Your task to perform on an android device: change keyboard looks Image 0: 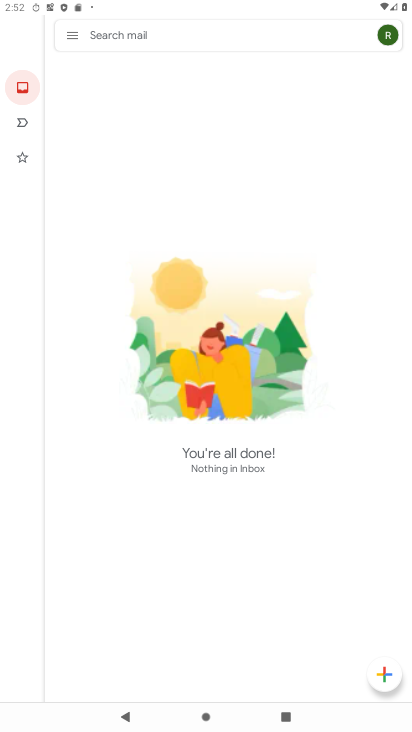
Step 0: press home button
Your task to perform on an android device: change keyboard looks Image 1: 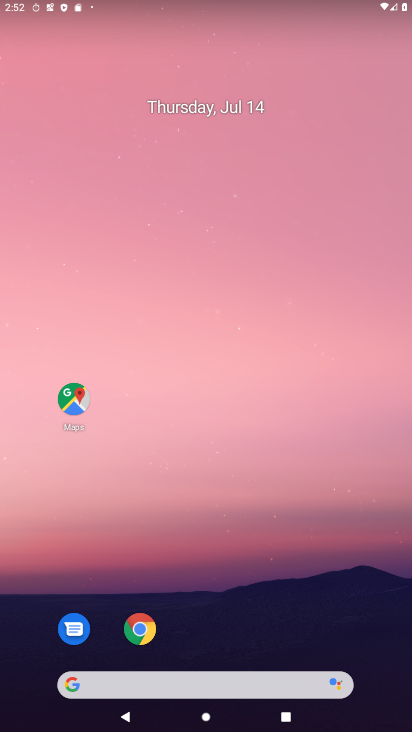
Step 1: drag from (274, 591) to (268, 119)
Your task to perform on an android device: change keyboard looks Image 2: 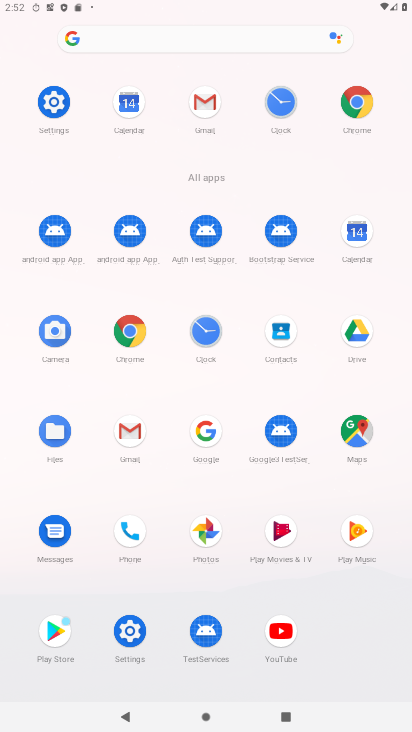
Step 2: click (53, 101)
Your task to perform on an android device: change keyboard looks Image 3: 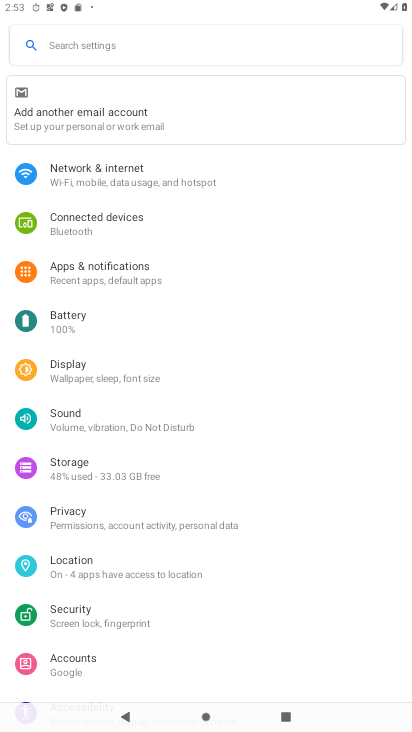
Step 3: drag from (181, 571) to (176, 56)
Your task to perform on an android device: change keyboard looks Image 4: 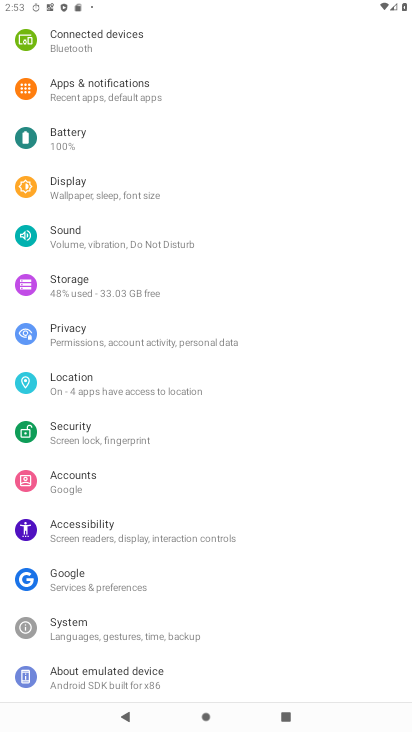
Step 4: click (153, 625)
Your task to perform on an android device: change keyboard looks Image 5: 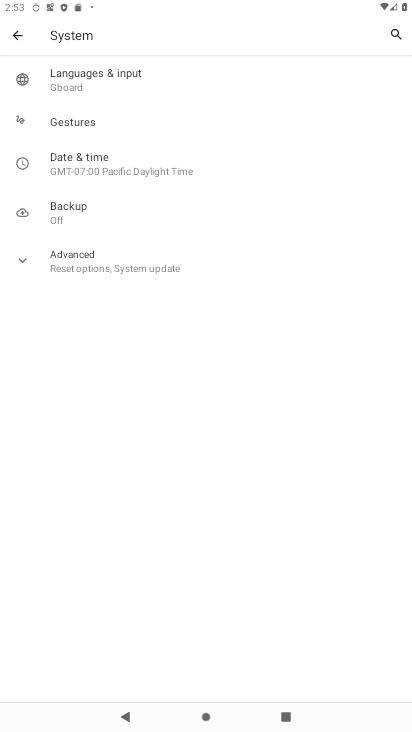
Step 5: click (148, 92)
Your task to perform on an android device: change keyboard looks Image 6: 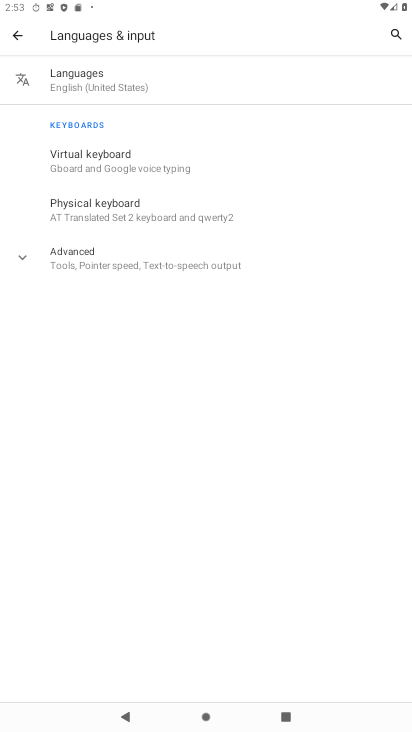
Step 6: click (94, 164)
Your task to perform on an android device: change keyboard looks Image 7: 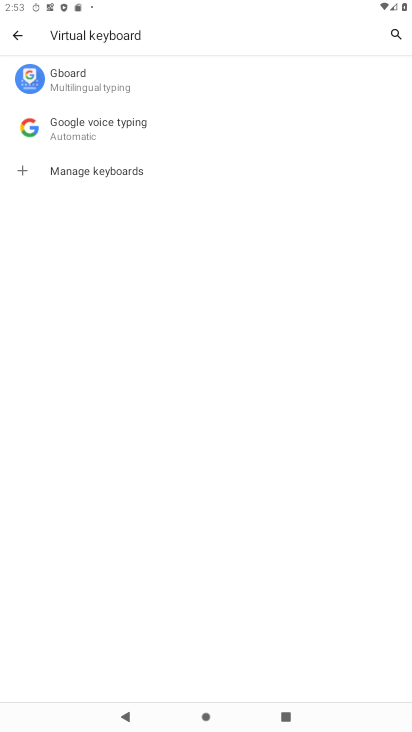
Step 7: click (97, 80)
Your task to perform on an android device: change keyboard looks Image 8: 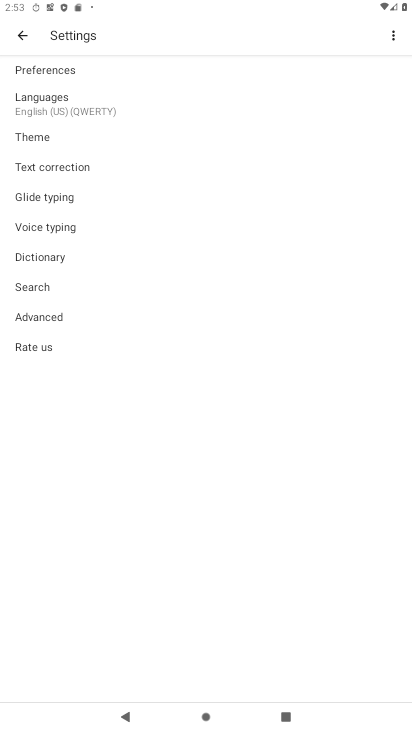
Step 8: click (79, 138)
Your task to perform on an android device: change keyboard looks Image 9: 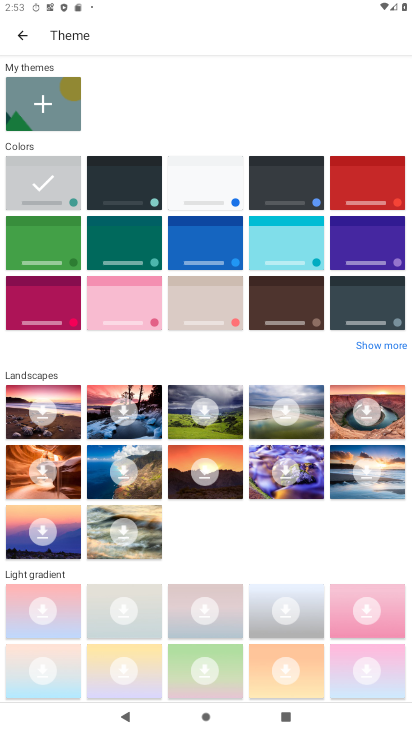
Step 9: click (196, 297)
Your task to perform on an android device: change keyboard looks Image 10: 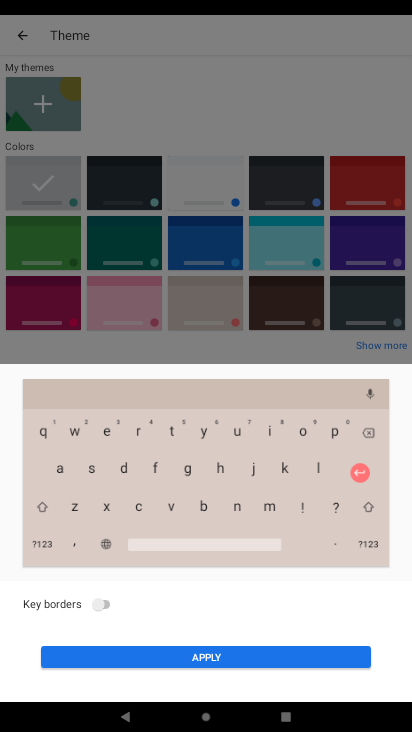
Step 10: click (274, 657)
Your task to perform on an android device: change keyboard looks Image 11: 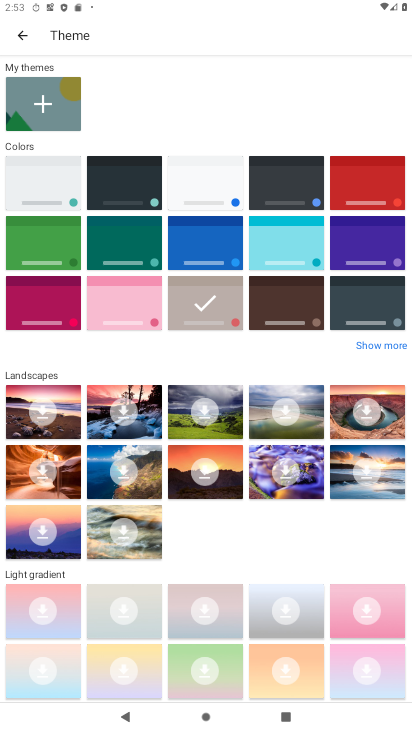
Step 11: task complete